Your task to perform on an android device: open the mobile data screen to see how much data has been used Image 0: 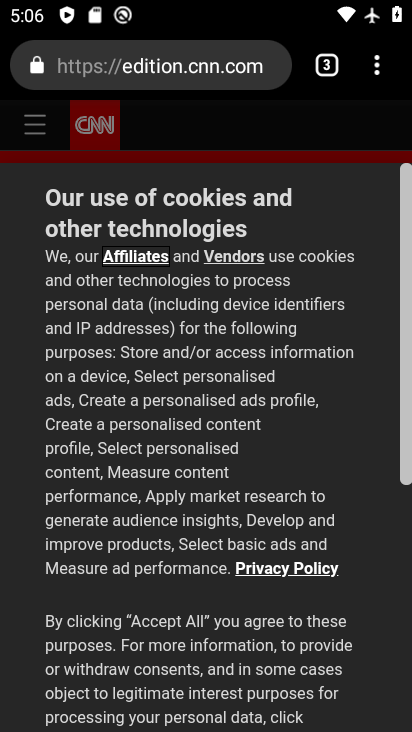
Step 0: drag from (345, 554) to (200, 9)
Your task to perform on an android device: open the mobile data screen to see how much data has been used Image 1: 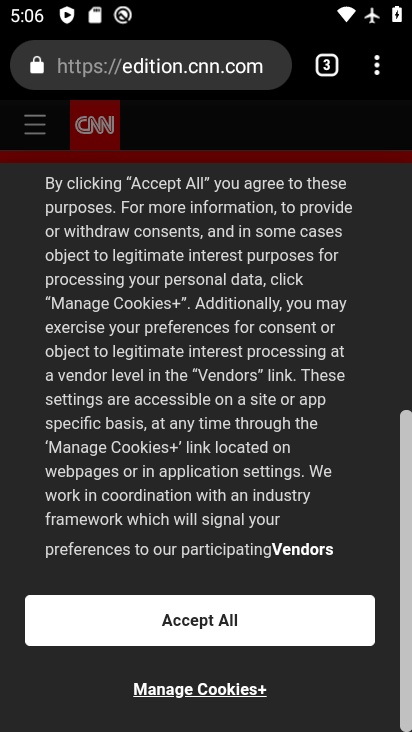
Step 1: press home button
Your task to perform on an android device: open the mobile data screen to see how much data has been used Image 2: 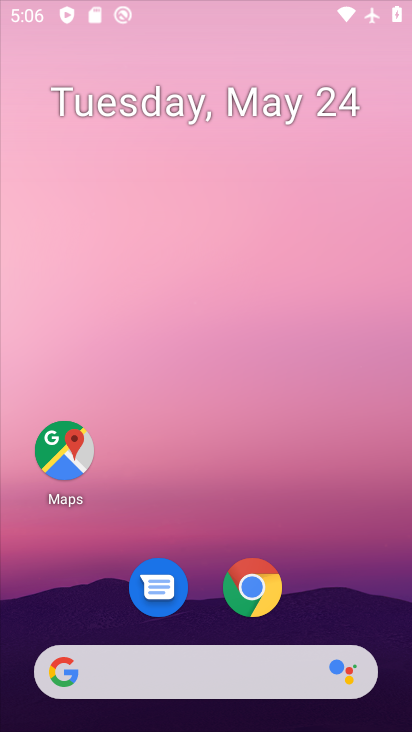
Step 2: drag from (328, 549) to (194, 21)
Your task to perform on an android device: open the mobile data screen to see how much data has been used Image 3: 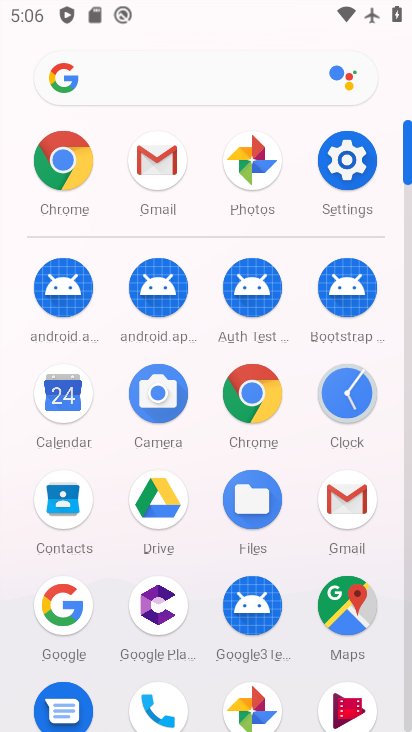
Step 3: click (365, 161)
Your task to perform on an android device: open the mobile data screen to see how much data has been used Image 4: 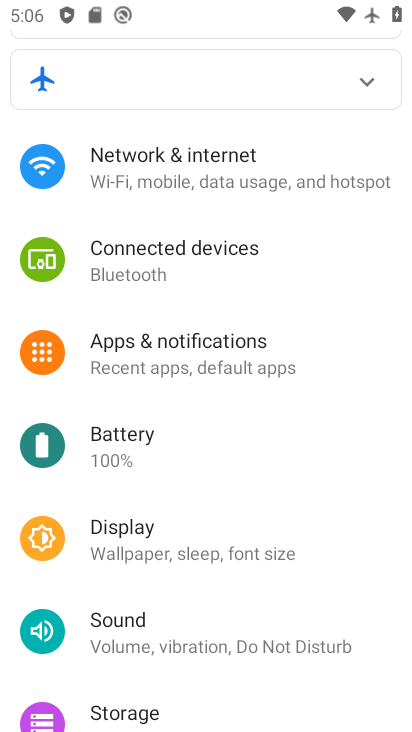
Step 4: click (227, 162)
Your task to perform on an android device: open the mobile data screen to see how much data has been used Image 5: 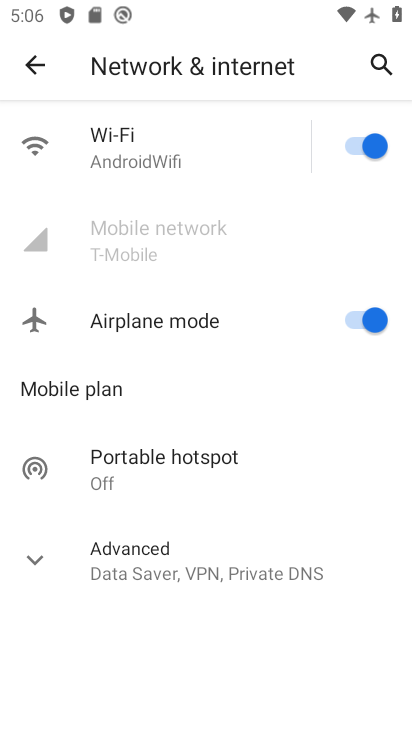
Step 5: task complete